Your task to perform on an android device: empty trash in the gmail app Image 0: 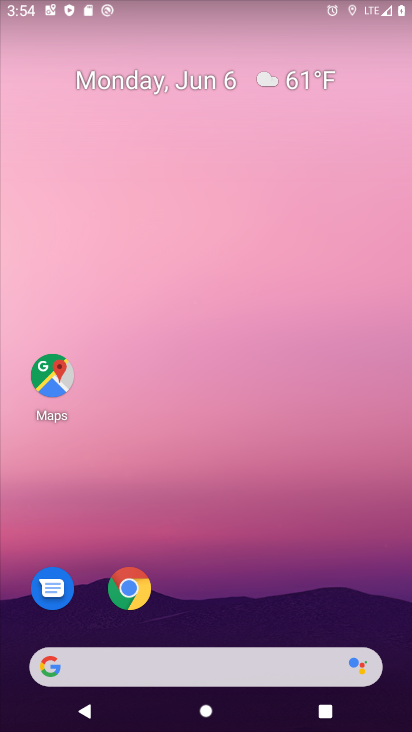
Step 0: drag from (229, 618) to (158, 191)
Your task to perform on an android device: empty trash in the gmail app Image 1: 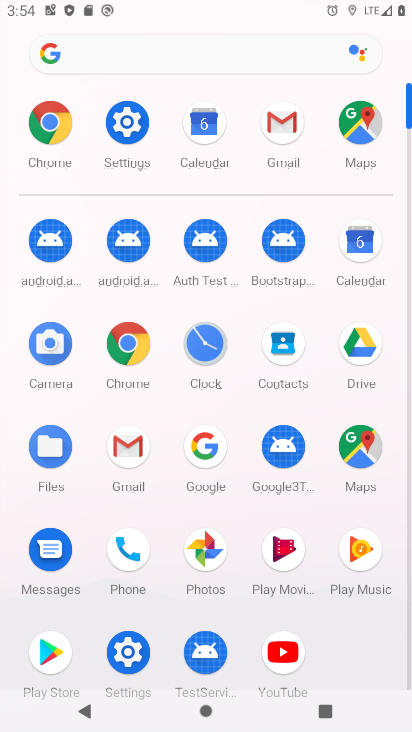
Step 1: click (292, 145)
Your task to perform on an android device: empty trash in the gmail app Image 2: 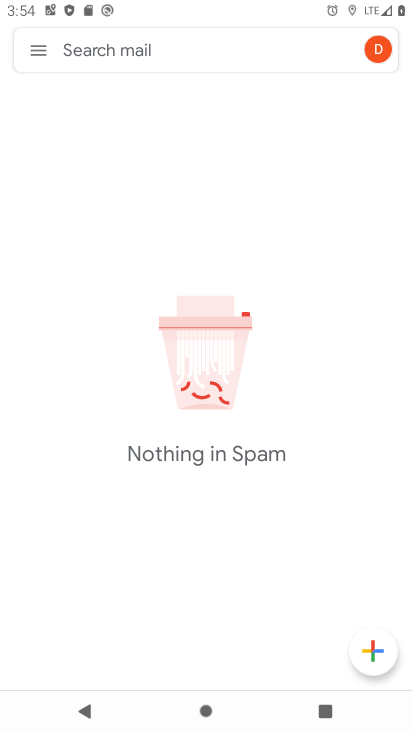
Step 2: click (35, 47)
Your task to perform on an android device: empty trash in the gmail app Image 3: 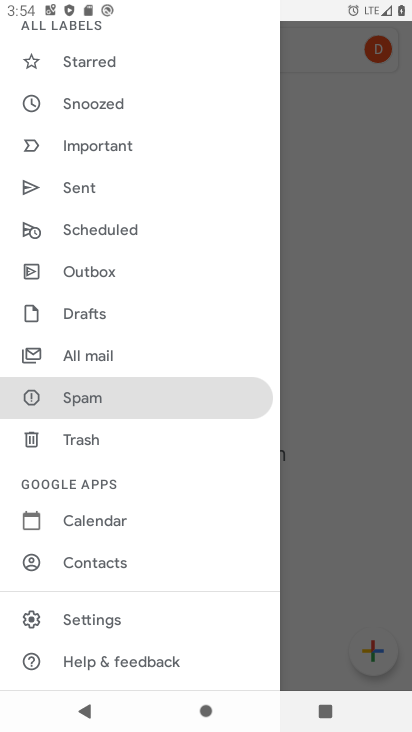
Step 3: click (107, 433)
Your task to perform on an android device: empty trash in the gmail app Image 4: 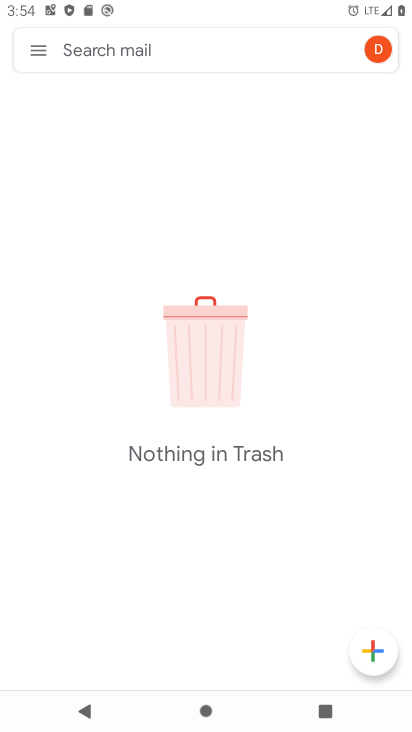
Step 4: task complete